Your task to perform on an android device: Open the calendar and show me this week's events? Image 0: 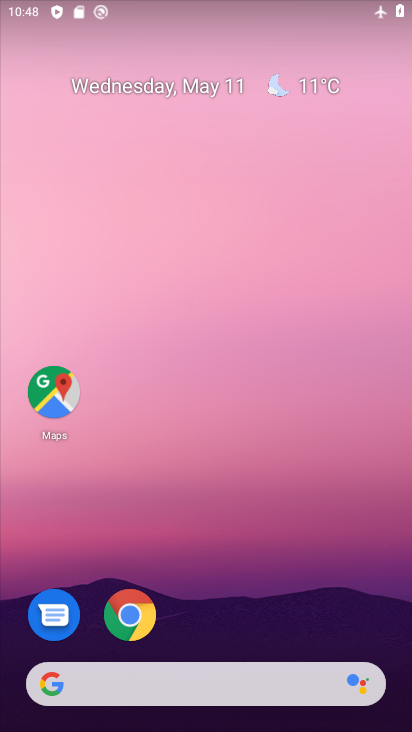
Step 0: drag from (287, 584) to (282, 108)
Your task to perform on an android device: Open the calendar and show me this week's events? Image 1: 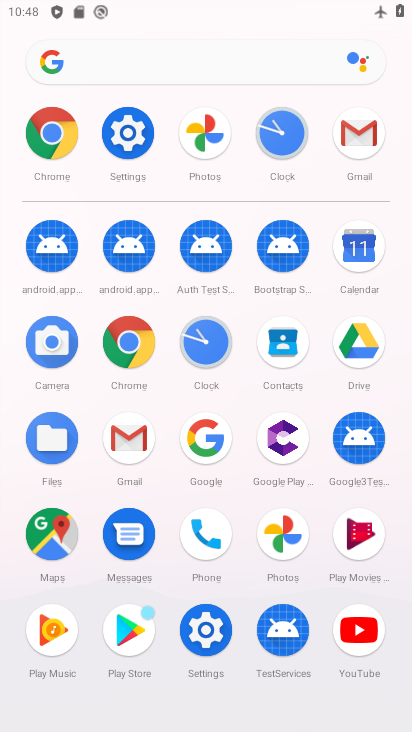
Step 1: click (356, 236)
Your task to perform on an android device: Open the calendar and show me this week's events? Image 2: 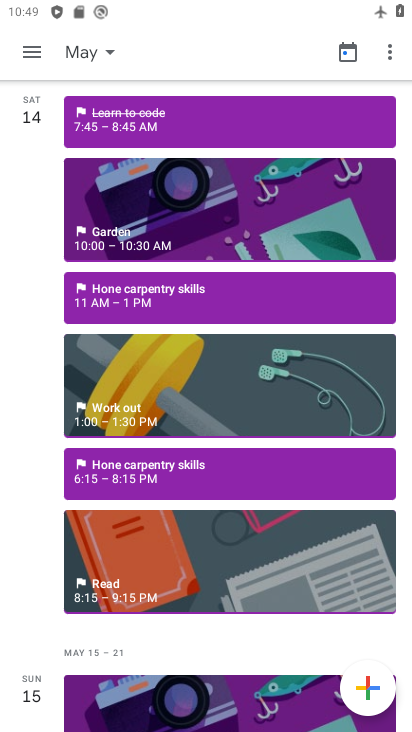
Step 2: click (37, 52)
Your task to perform on an android device: Open the calendar and show me this week's events? Image 3: 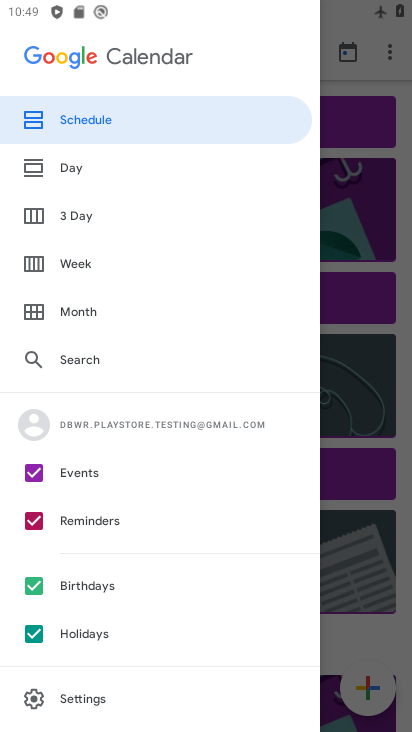
Step 3: click (82, 266)
Your task to perform on an android device: Open the calendar and show me this week's events? Image 4: 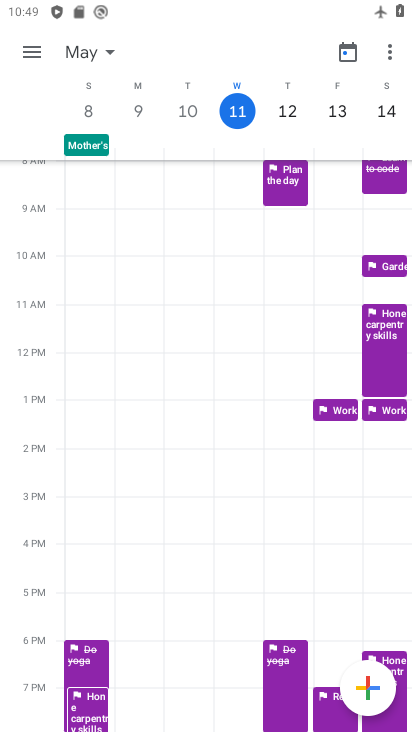
Step 4: task complete